Your task to perform on an android device: turn on airplane mode Image 0: 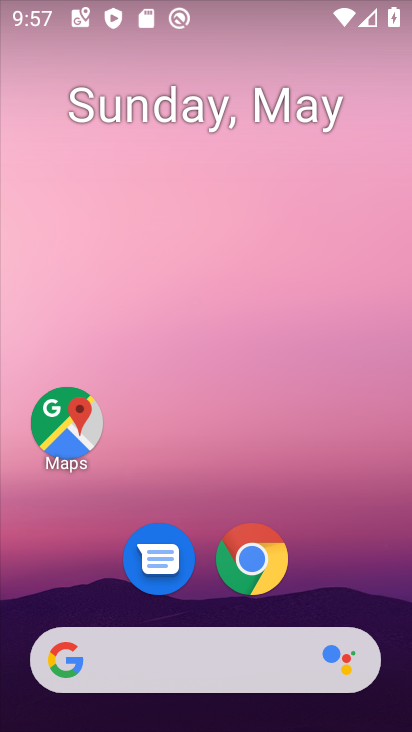
Step 0: drag from (245, 7) to (264, 330)
Your task to perform on an android device: turn on airplane mode Image 1: 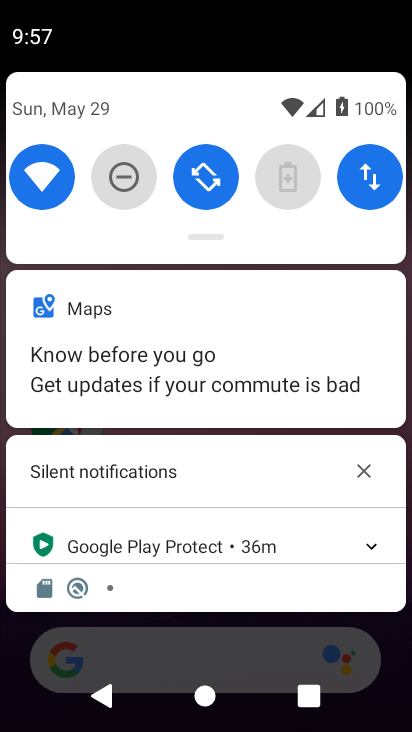
Step 1: drag from (203, 240) to (226, 514)
Your task to perform on an android device: turn on airplane mode Image 2: 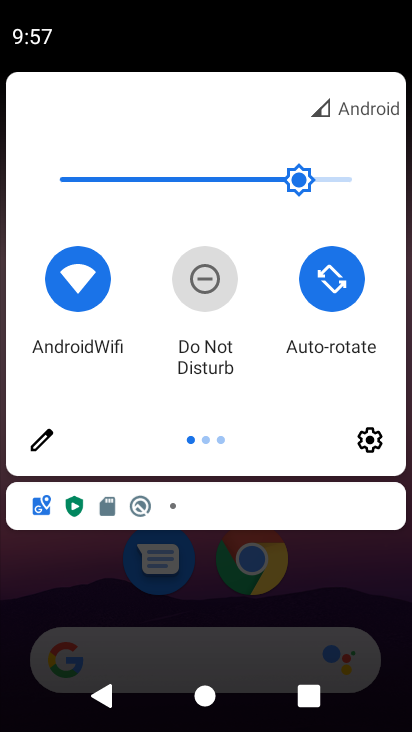
Step 2: drag from (322, 396) to (113, 400)
Your task to perform on an android device: turn on airplane mode Image 3: 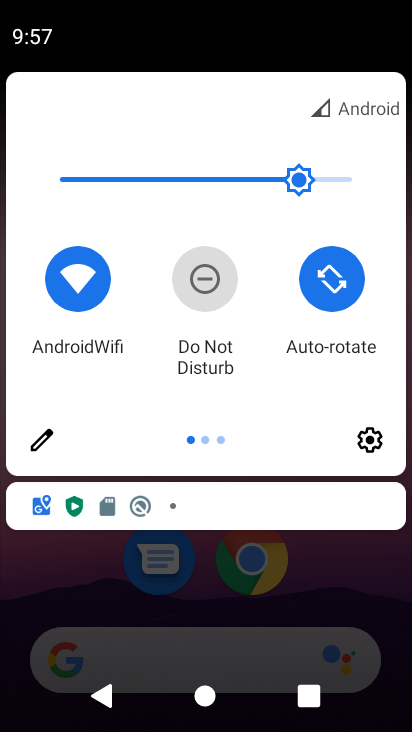
Step 3: drag from (342, 383) to (80, 371)
Your task to perform on an android device: turn on airplane mode Image 4: 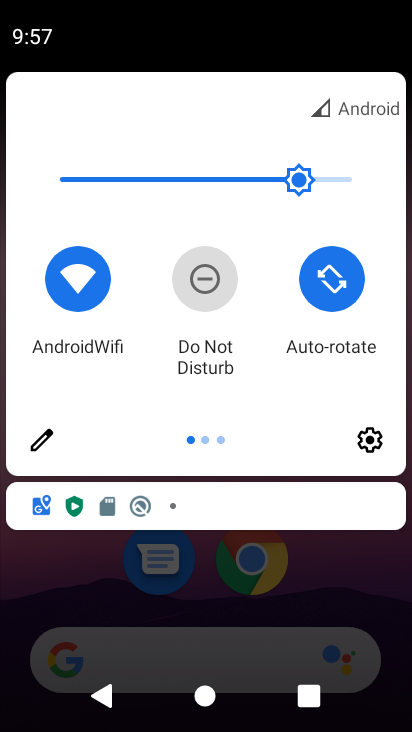
Step 4: drag from (302, 371) to (52, 370)
Your task to perform on an android device: turn on airplane mode Image 5: 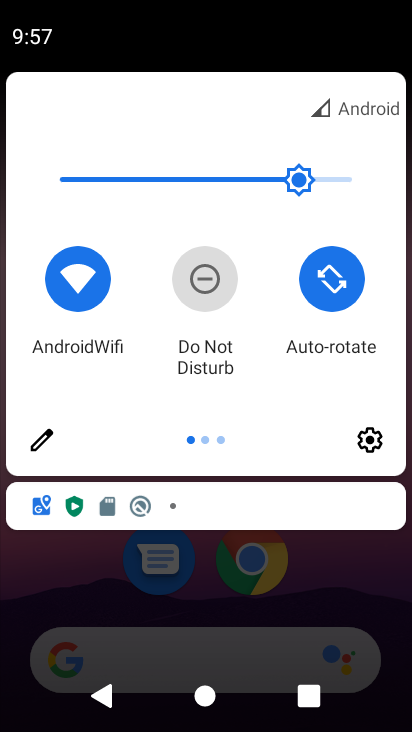
Step 5: drag from (92, 383) to (299, 403)
Your task to perform on an android device: turn on airplane mode Image 6: 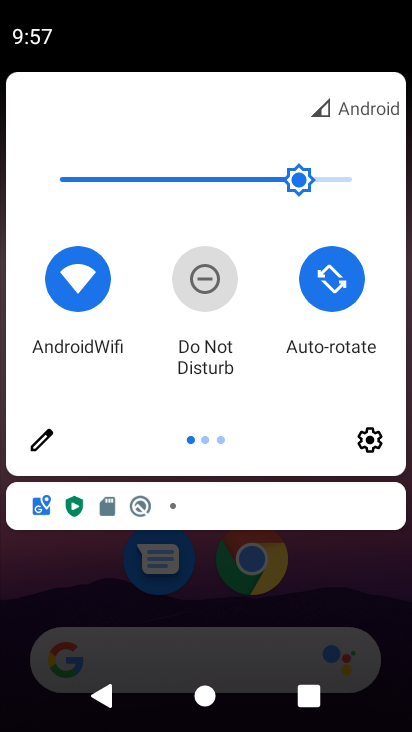
Step 6: drag from (143, 386) to (283, 378)
Your task to perform on an android device: turn on airplane mode Image 7: 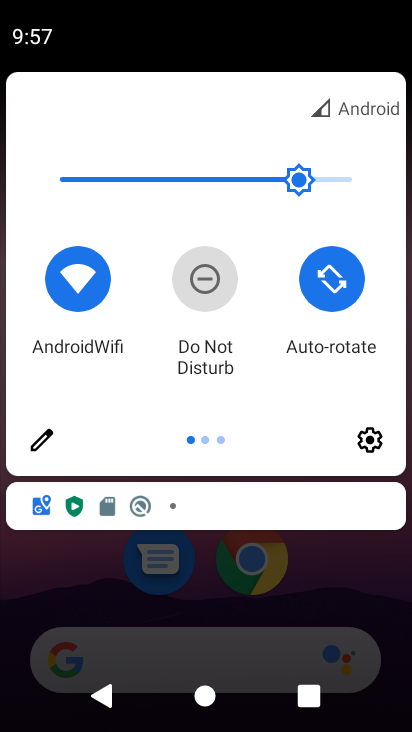
Step 7: drag from (145, 411) to (337, 406)
Your task to perform on an android device: turn on airplane mode Image 8: 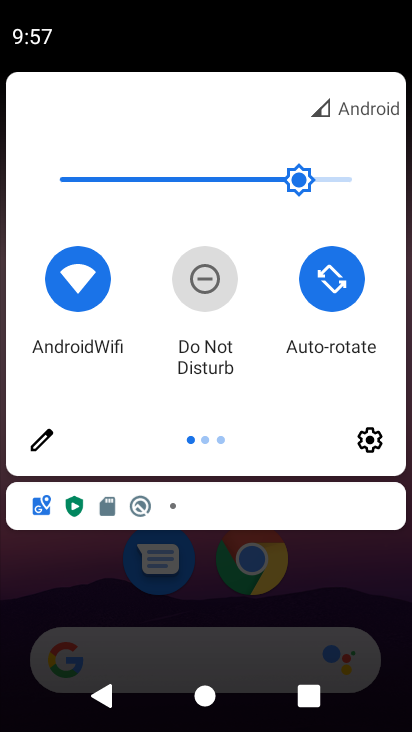
Step 8: drag from (289, 393) to (7, 418)
Your task to perform on an android device: turn on airplane mode Image 9: 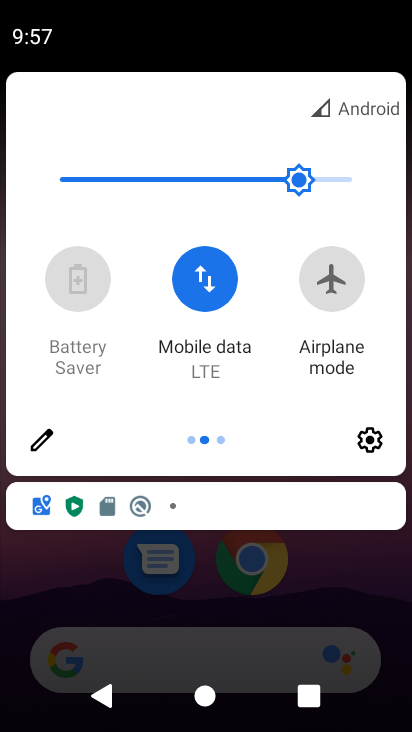
Step 9: drag from (329, 389) to (14, 398)
Your task to perform on an android device: turn on airplane mode Image 10: 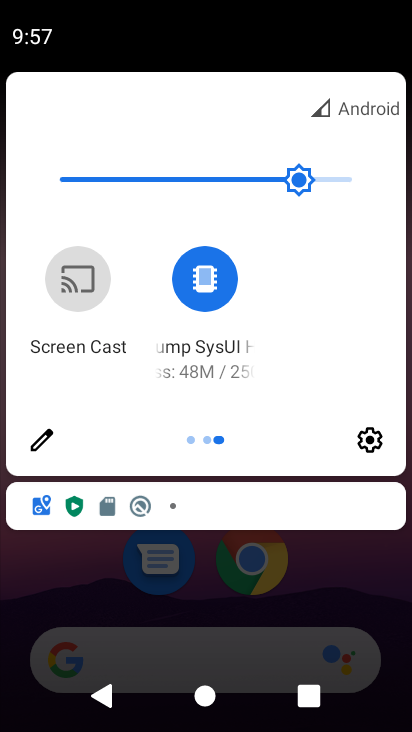
Step 10: drag from (328, 383) to (16, 392)
Your task to perform on an android device: turn on airplane mode Image 11: 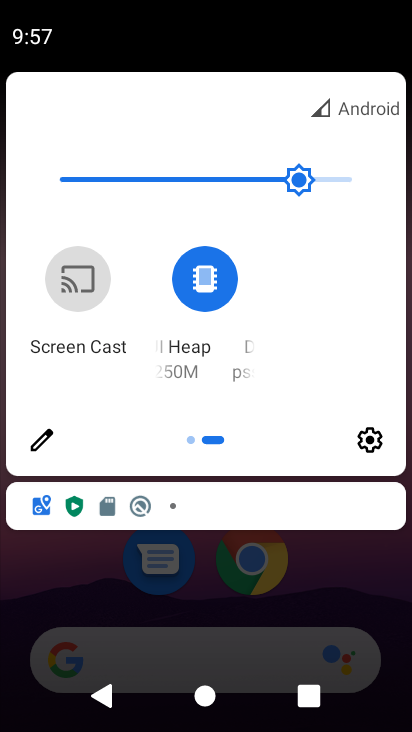
Step 11: drag from (117, 384) to (242, 390)
Your task to perform on an android device: turn on airplane mode Image 12: 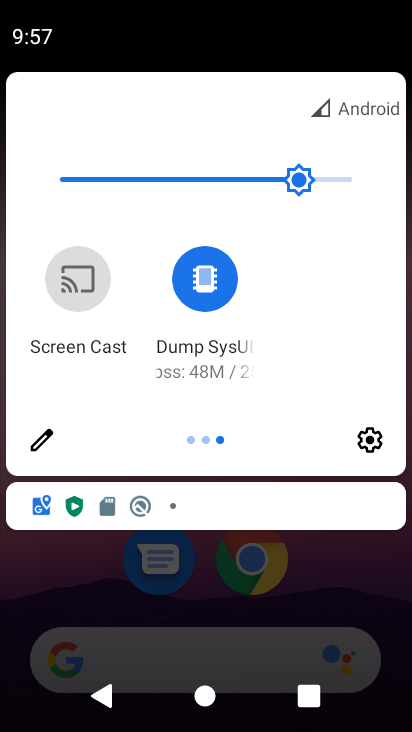
Step 12: drag from (255, 392) to (32, 383)
Your task to perform on an android device: turn on airplane mode Image 13: 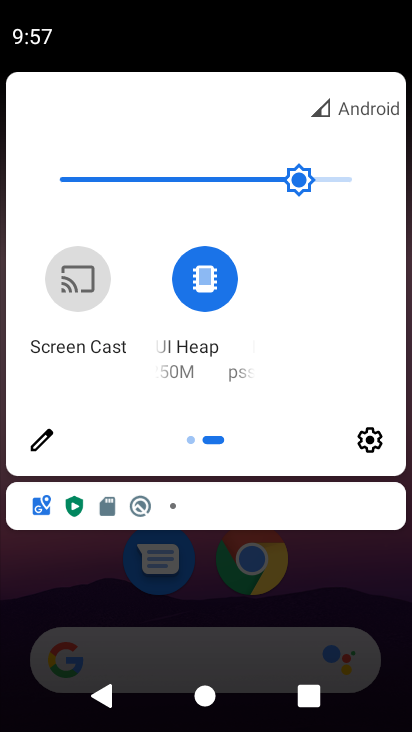
Step 13: drag from (105, 384) to (384, 378)
Your task to perform on an android device: turn on airplane mode Image 14: 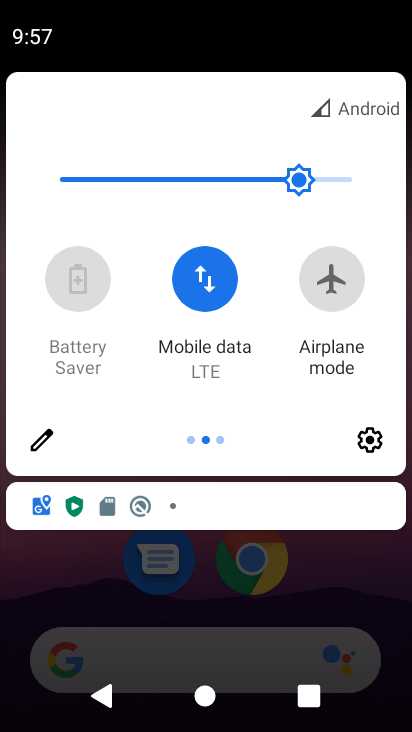
Step 14: click (332, 281)
Your task to perform on an android device: turn on airplane mode Image 15: 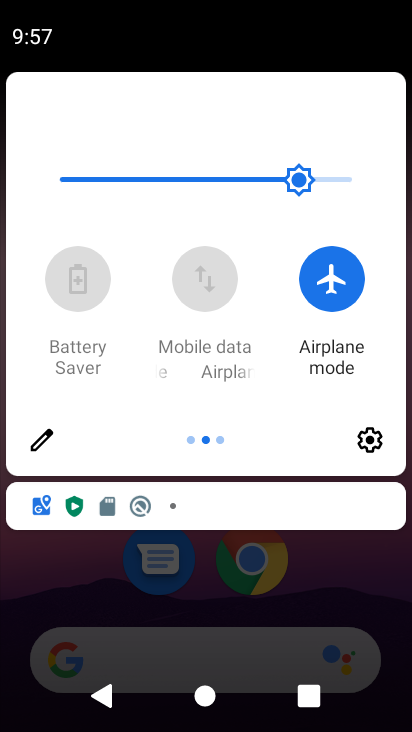
Step 15: task complete